Your task to perform on an android device: Open Wikipedia Image 0: 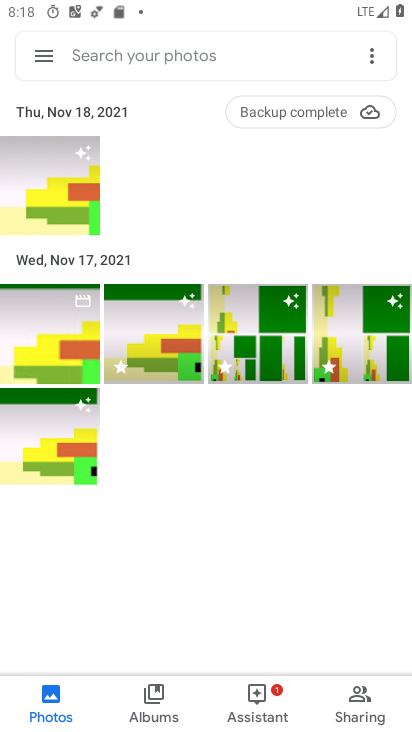
Step 0: press home button
Your task to perform on an android device: Open Wikipedia Image 1: 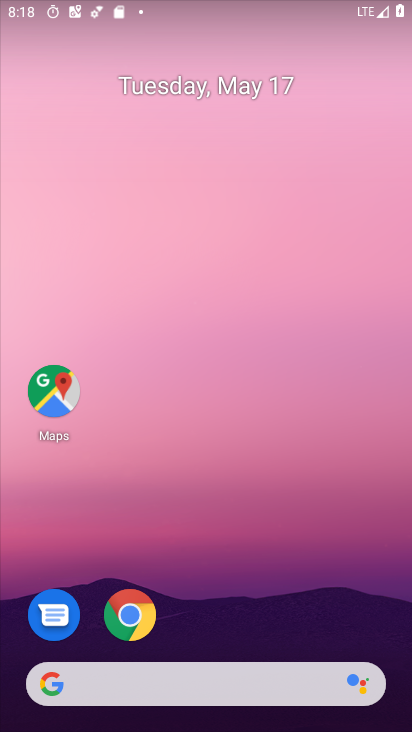
Step 1: drag from (238, 665) to (292, 294)
Your task to perform on an android device: Open Wikipedia Image 2: 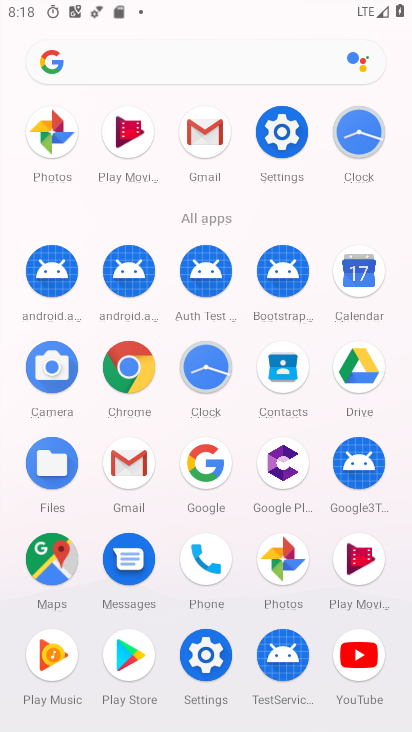
Step 2: click (204, 464)
Your task to perform on an android device: Open Wikipedia Image 3: 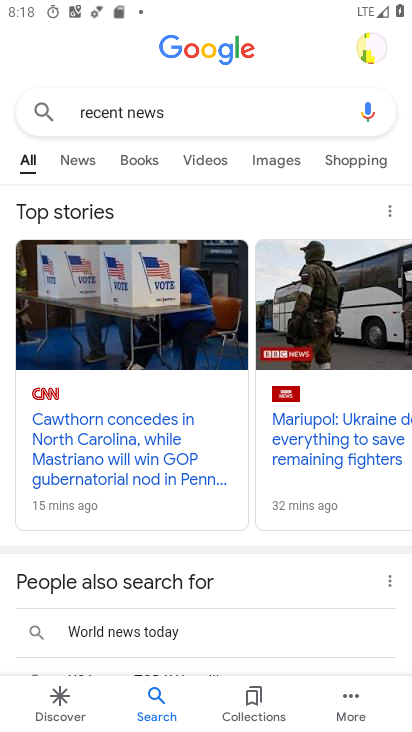
Step 3: click (242, 115)
Your task to perform on an android device: Open Wikipedia Image 4: 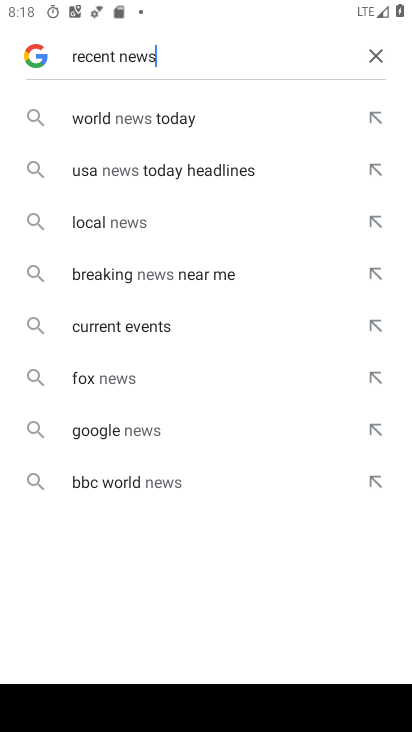
Step 4: click (377, 63)
Your task to perform on an android device: Open Wikipedia Image 5: 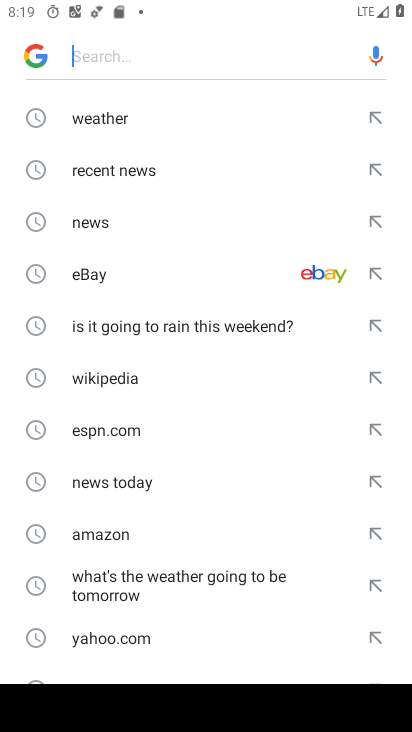
Step 5: click (118, 374)
Your task to perform on an android device: Open Wikipedia Image 6: 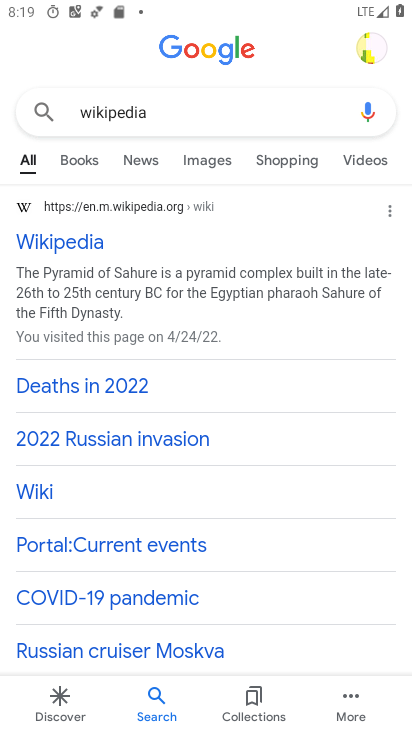
Step 6: click (65, 247)
Your task to perform on an android device: Open Wikipedia Image 7: 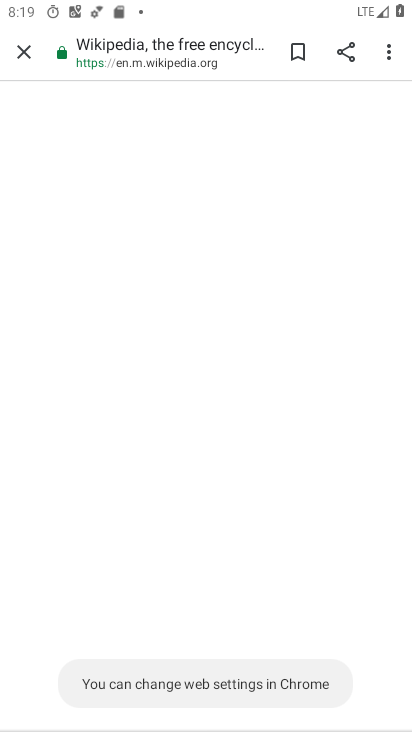
Step 7: task complete